Your task to perform on an android device: toggle show notifications on the lock screen Image 0: 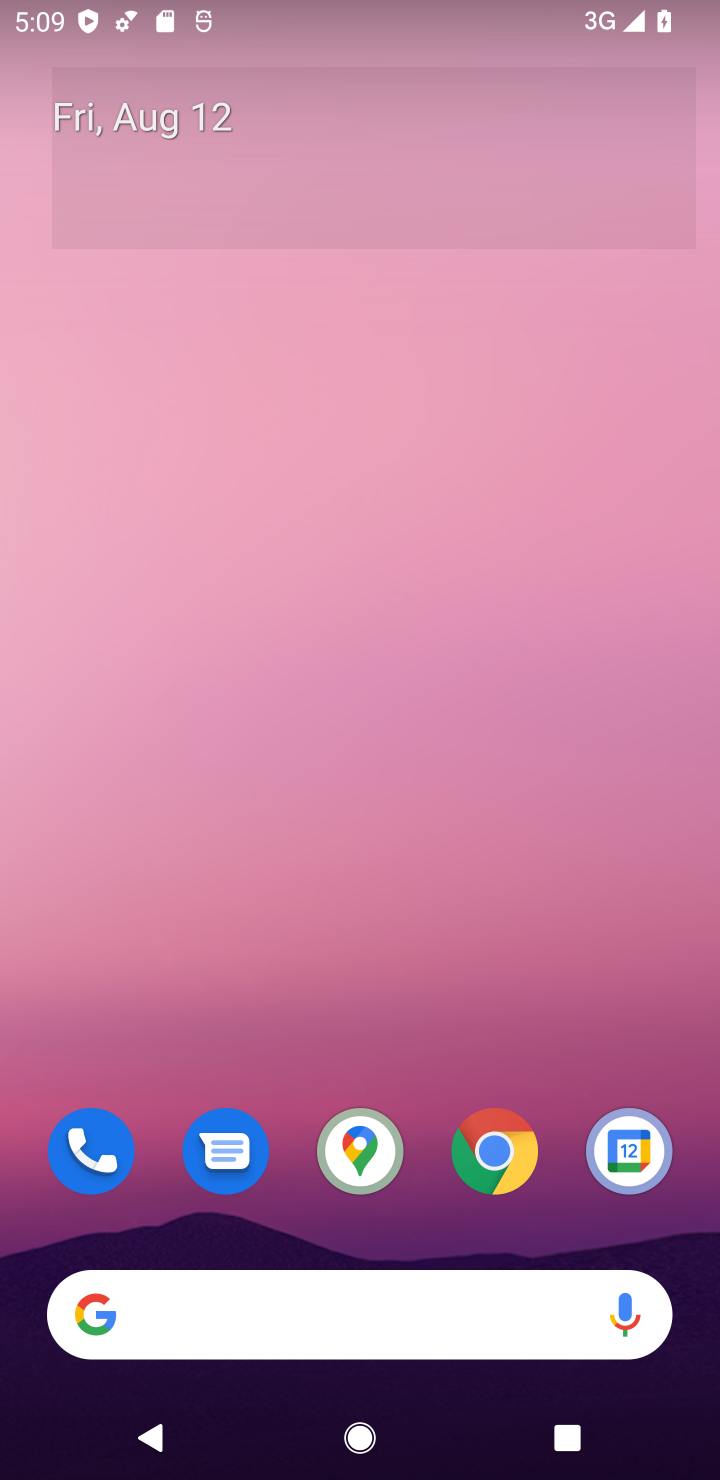
Step 0: drag from (533, 641) to (565, 69)
Your task to perform on an android device: toggle show notifications on the lock screen Image 1: 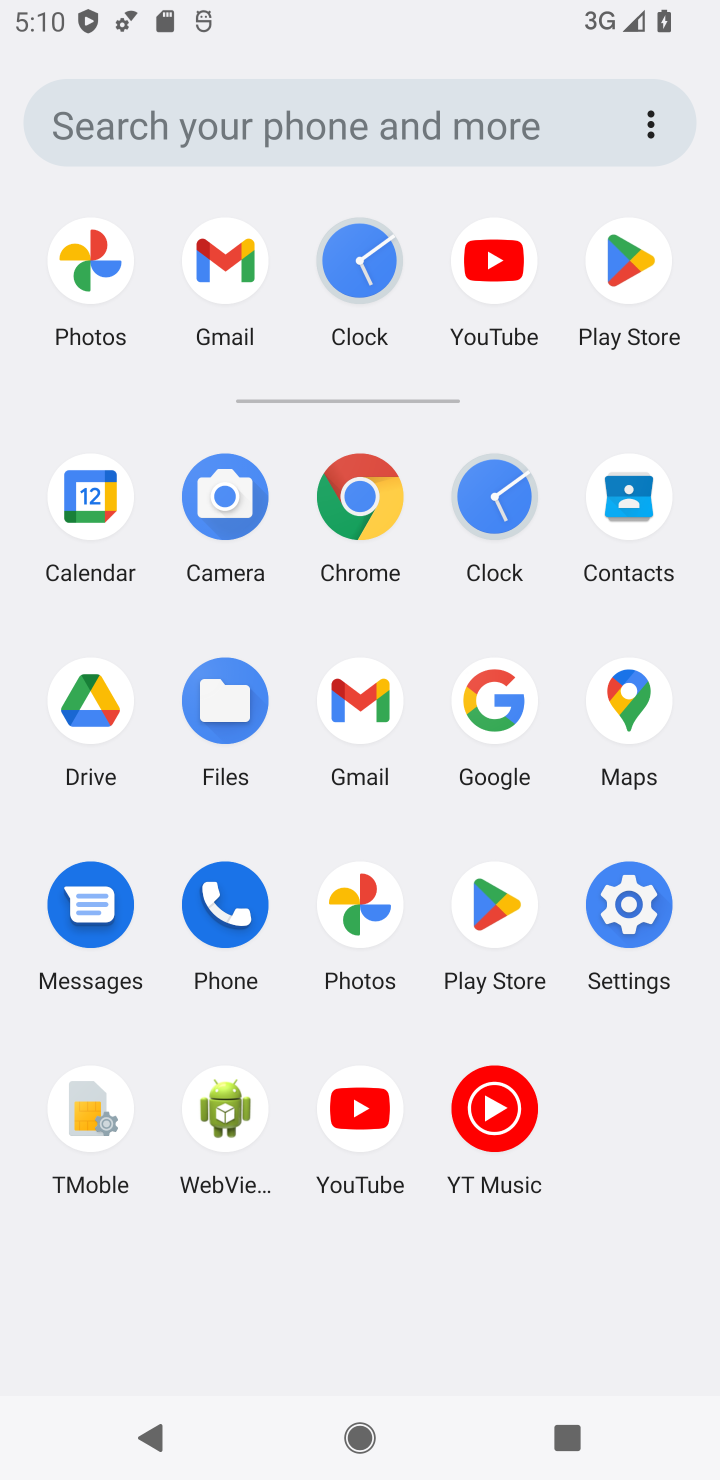
Step 1: click (614, 882)
Your task to perform on an android device: toggle show notifications on the lock screen Image 2: 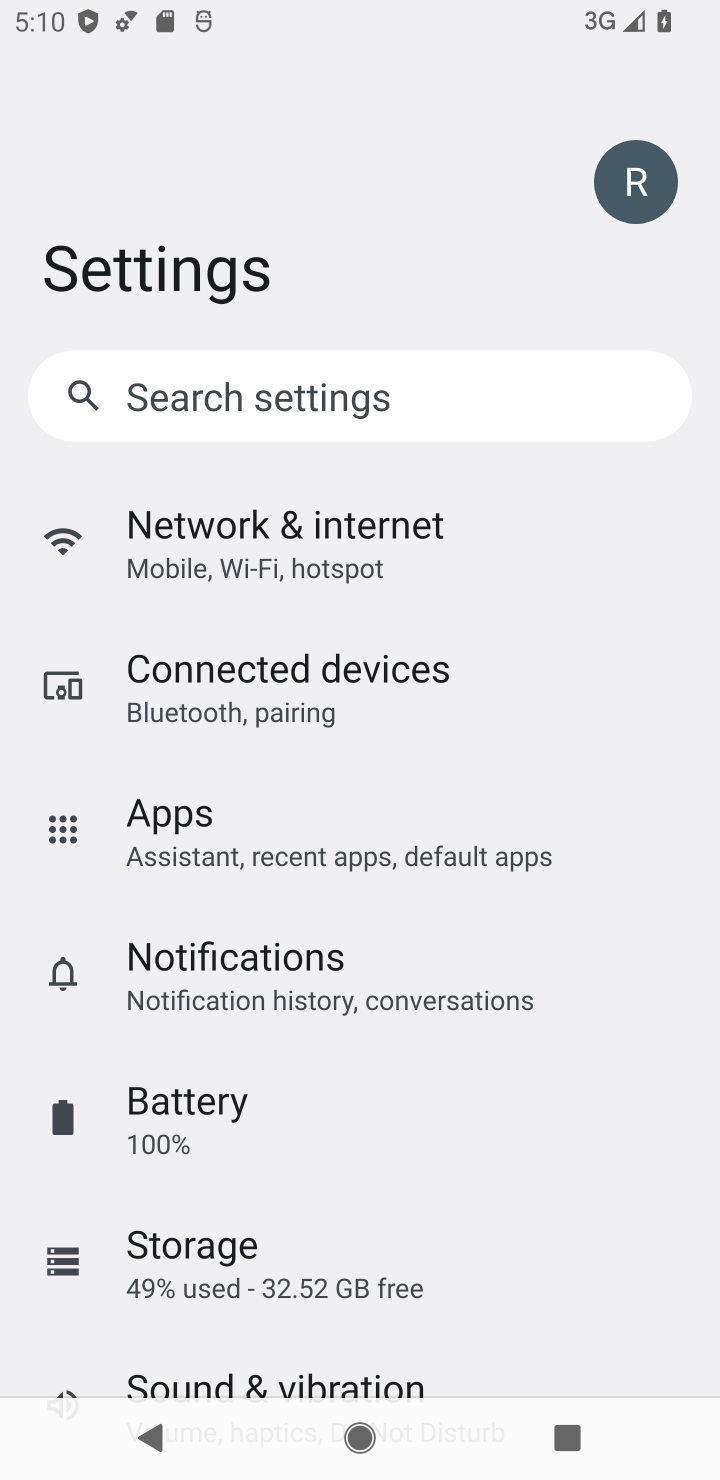
Step 2: click (245, 936)
Your task to perform on an android device: toggle show notifications on the lock screen Image 3: 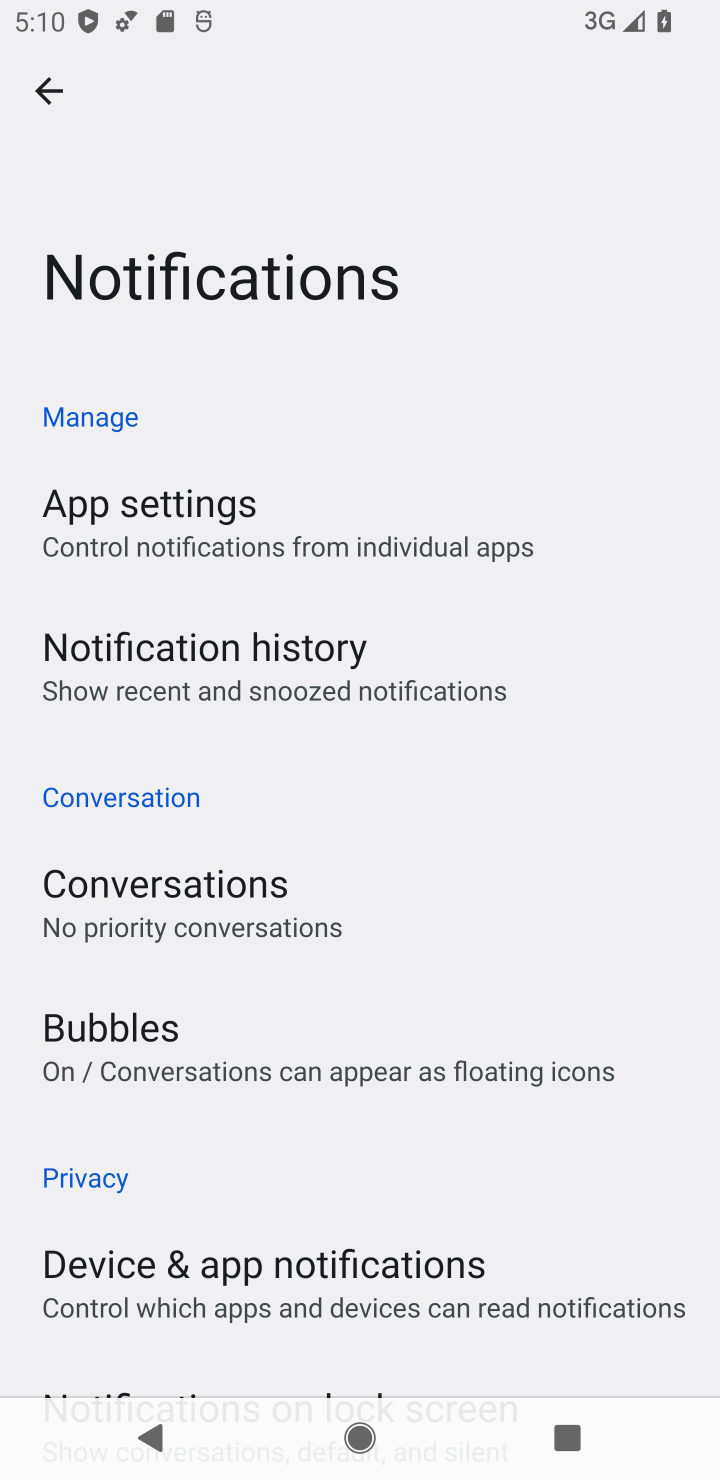
Step 3: drag from (573, 967) to (665, 64)
Your task to perform on an android device: toggle show notifications on the lock screen Image 4: 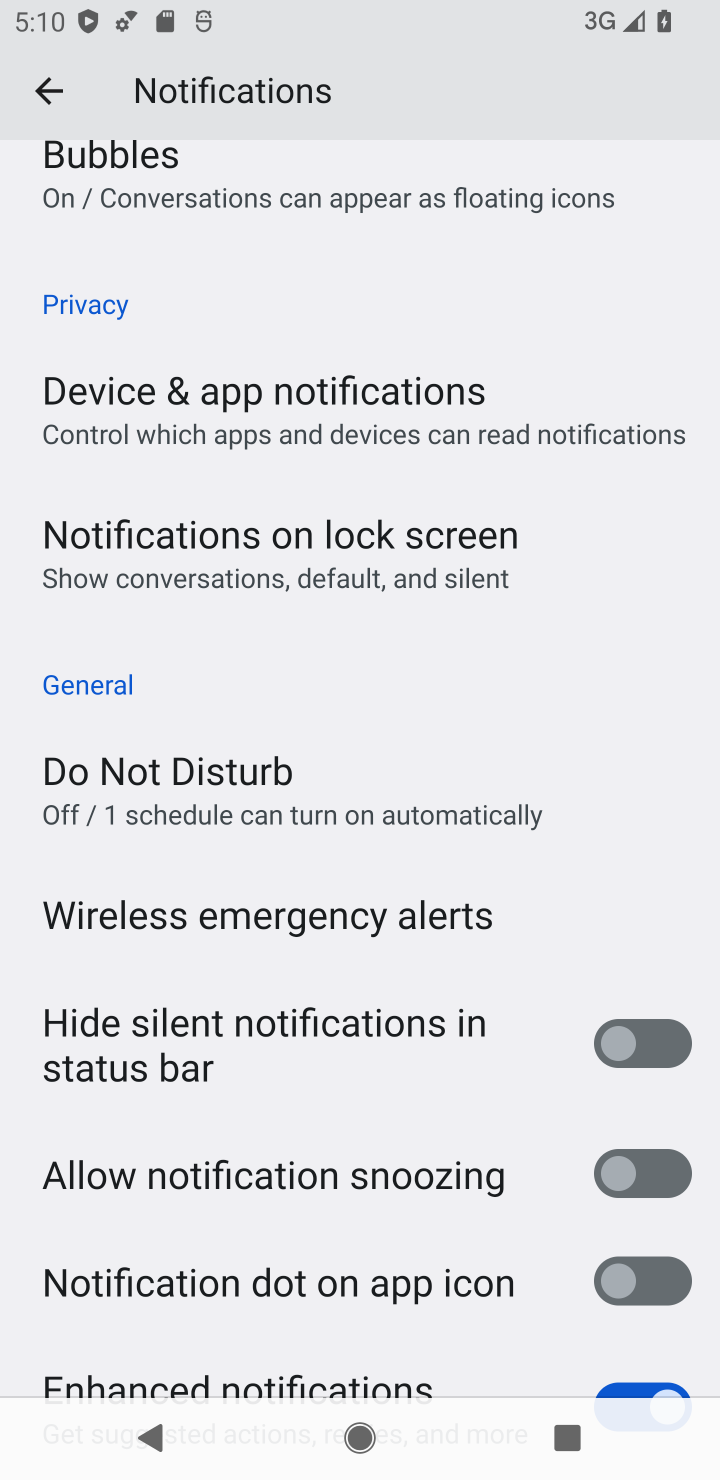
Step 4: click (362, 567)
Your task to perform on an android device: toggle show notifications on the lock screen Image 5: 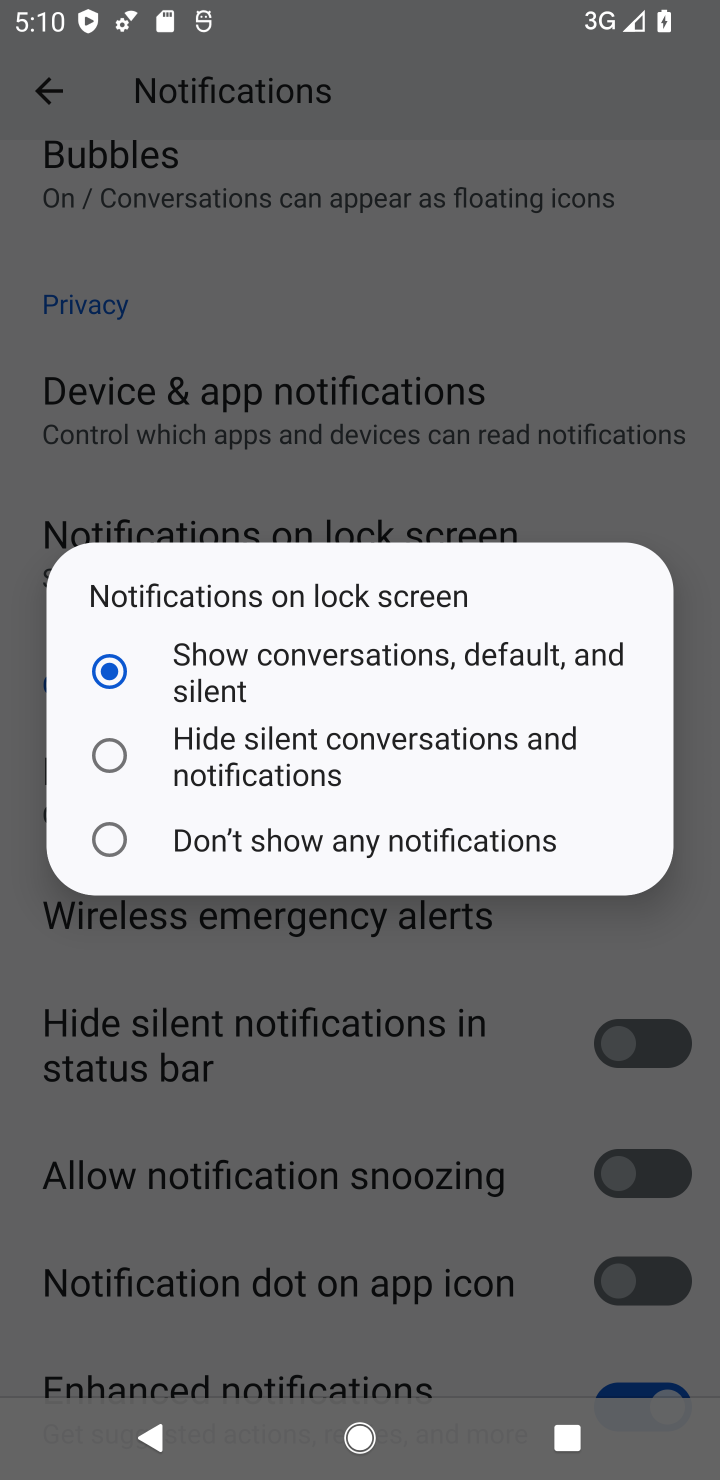
Step 5: task complete